Your task to perform on an android device: Open Reddit.com Image 0: 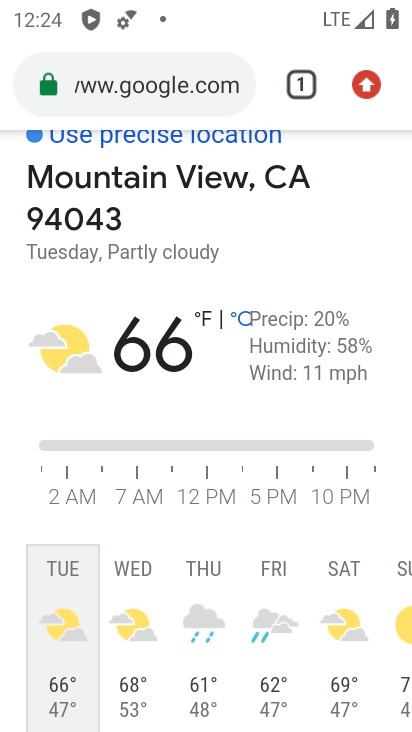
Step 0: press home button
Your task to perform on an android device: Open Reddit.com Image 1: 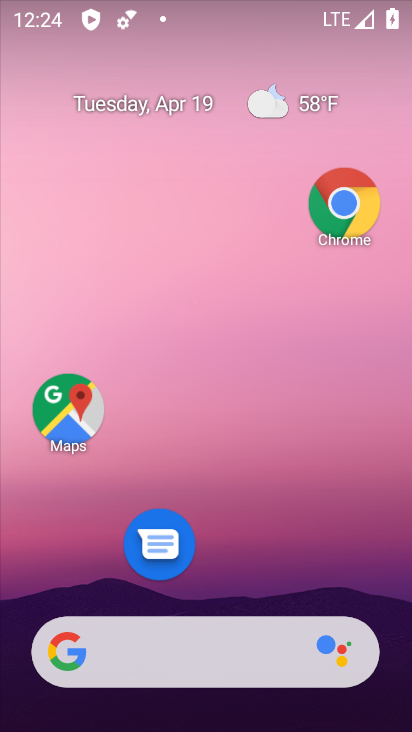
Step 1: drag from (236, 540) to (240, 0)
Your task to perform on an android device: Open Reddit.com Image 2: 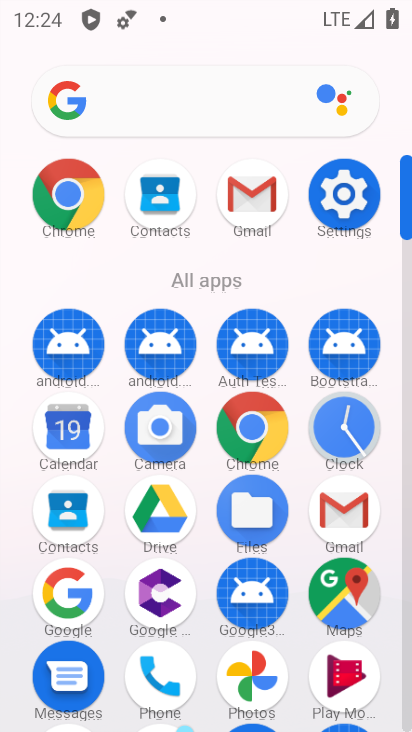
Step 2: click (73, 201)
Your task to perform on an android device: Open Reddit.com Image 3: 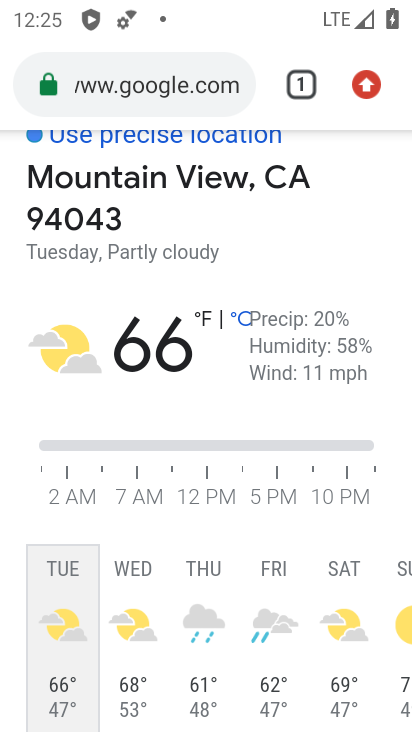
Step 3: press home button
Your task to perform on an android device: Open Reddit.com Image 4: 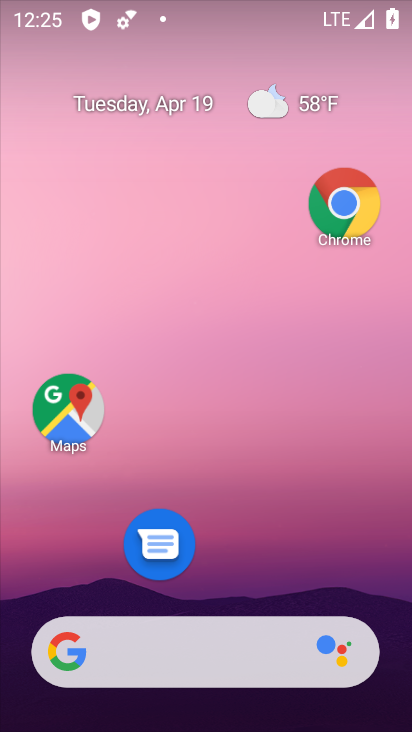
Step 4: click (355, 208)
Your task to perform on an android device: Open Reddit.com Image 5: 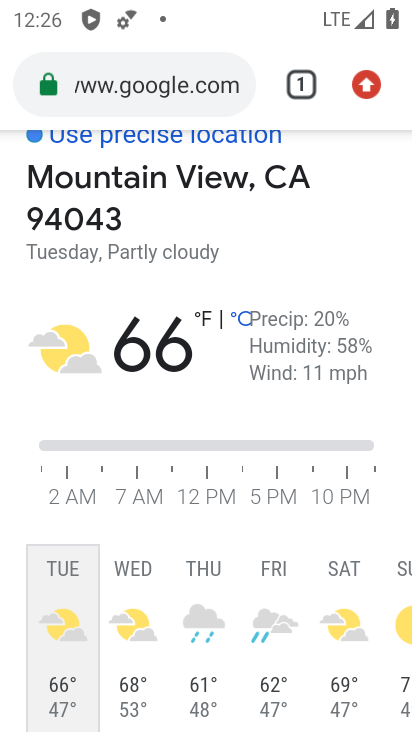
Step 5: click (294, 81)
Your task to perform on an android device: Open Reddit.com Image 6: 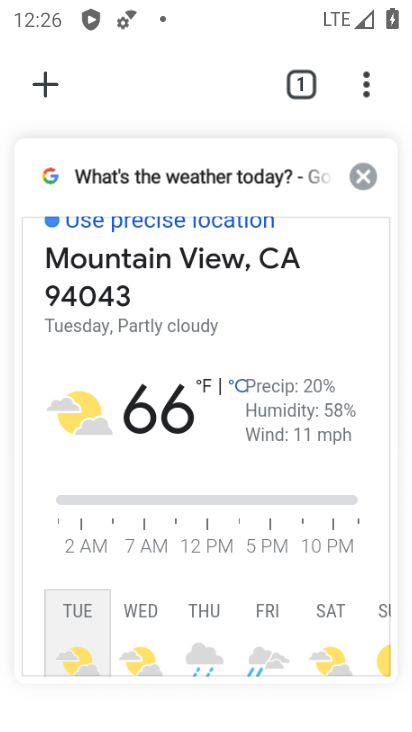
Step 6: click (37, 83)
Your task to perform on an android device: Open Reddit.com Image 7: 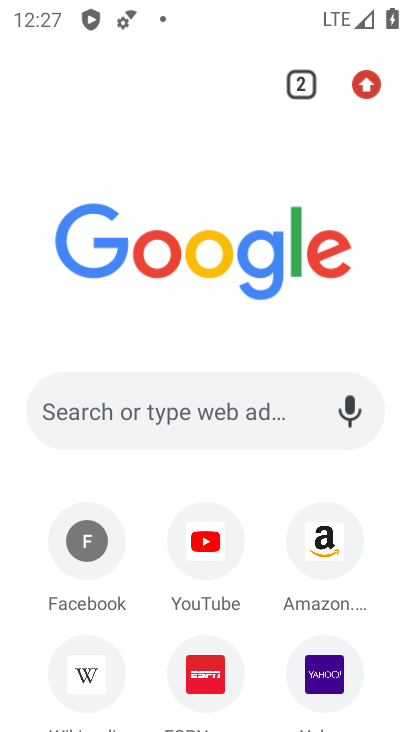
Step 7: click (154, 421)
Your task to perform on an android device: Open Reddit.com Image 8: 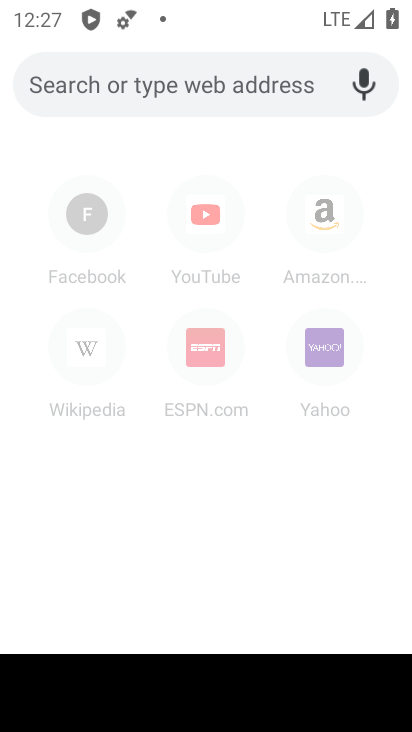
Step 8: type "Reddit.com"
Your task to perform on an android device: Open Reddit.com Image 9: 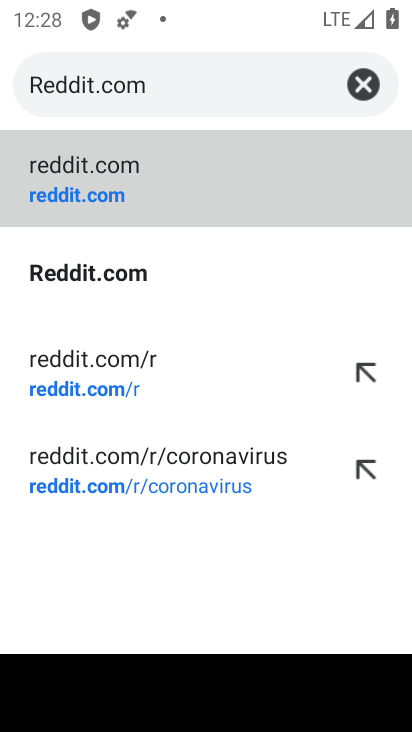
Step 9: click (155, 192)
Your task to perform on an android device: Open Reddit.com Image 10: 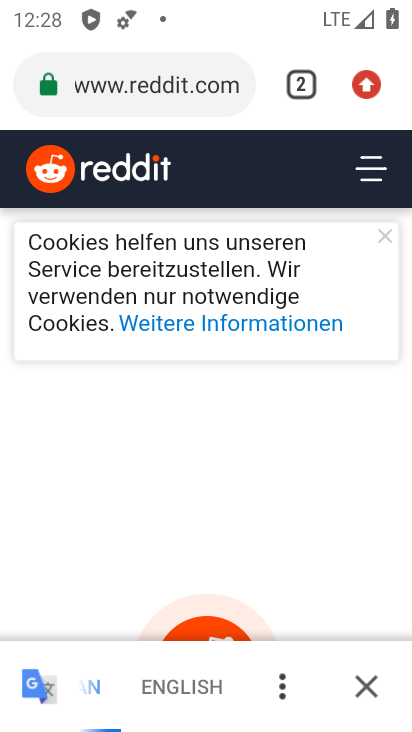
Step 10: task complete